Your task to perform on an android device: turn off wifi Image 0: 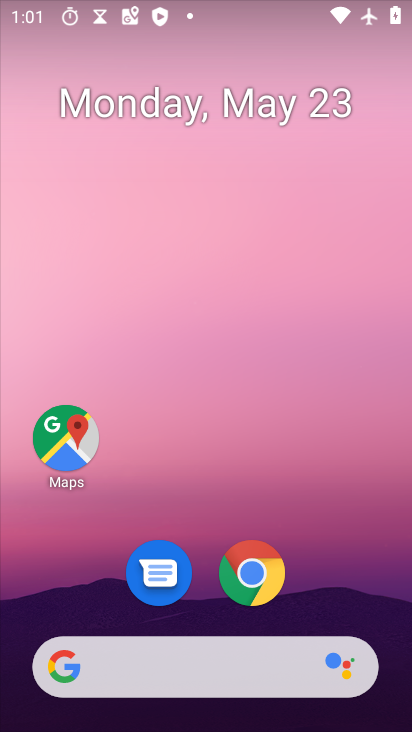
Step 0: press home button
Your task to perform on an android device: turn off wifi Image 1: 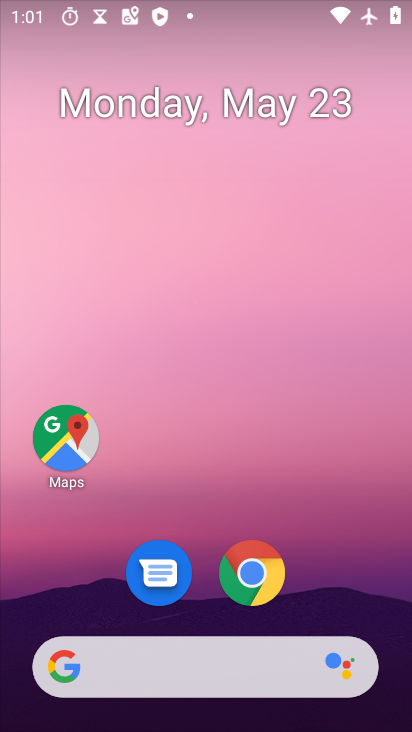
Step 1: drag from (183, 671) to (311, 95)
Your task to perform on an android device: turn off wifi Image 2: 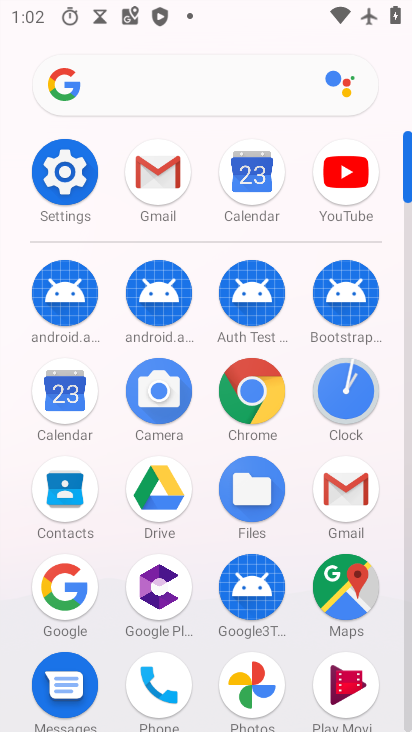
Step 2: click (67, 184)
Your task to perform on an android device: turn off wifi Image 3: 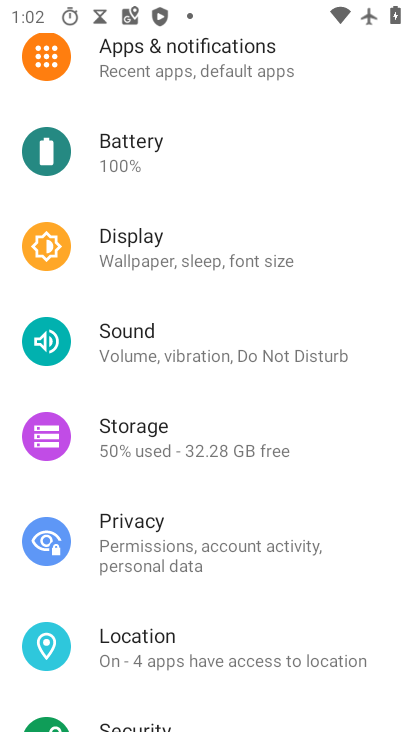
Step 3: drag from (312, 136) to (279, 587)
Your task to perform on an android device: turn off wifi Image 4: 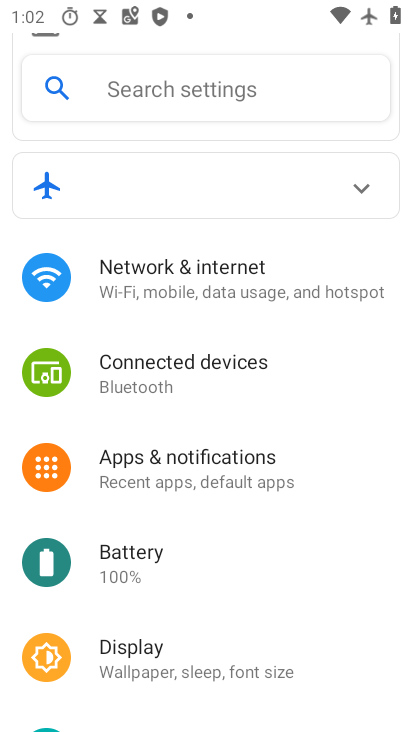
Step 4: click (224, 271)
Your task to perform on an android device: turn off wifi Image 5: 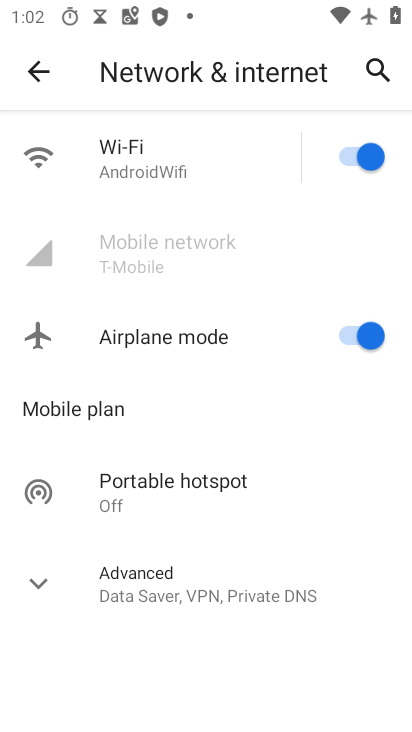
Step 5: click (352, 154)
Your task to perform on an android device: turn off wifi Image 6: 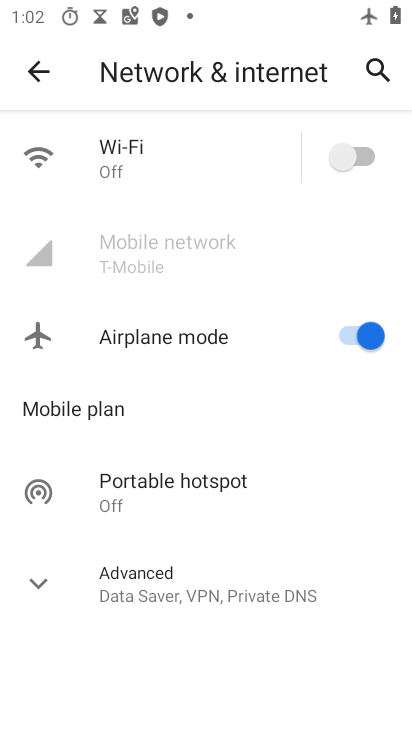
Step 6: task complete